Your task to perform on an android device: Open Google Image 0: 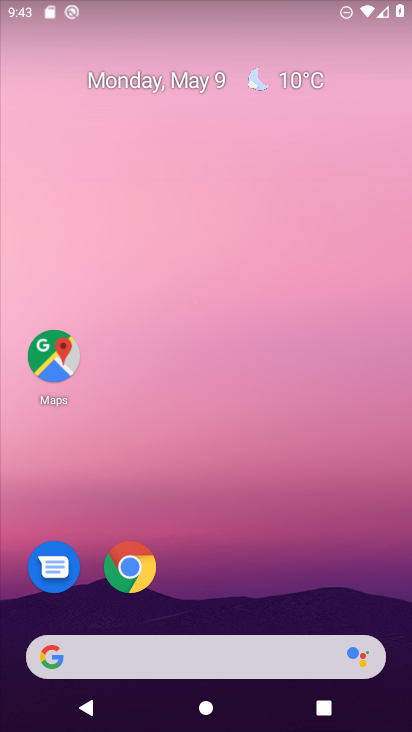
Step 0: click (118, 656)
Your task to perform on an android device: Open Google Image 1: 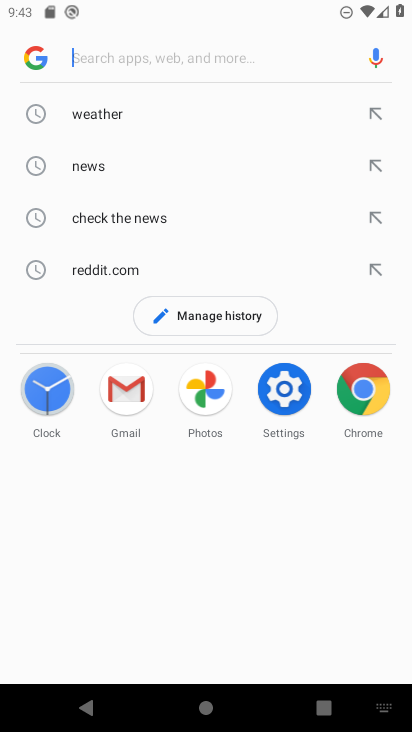
Step 1: click (33, 54)
Your task to perform on an android device: Open Google Image 2: 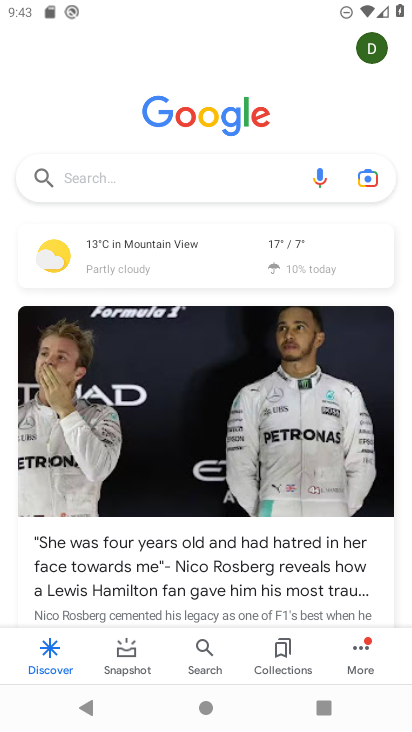
Step 2: task complete